Your task to perform on an android device: Search for pizza restaurants on Maps Image 0: 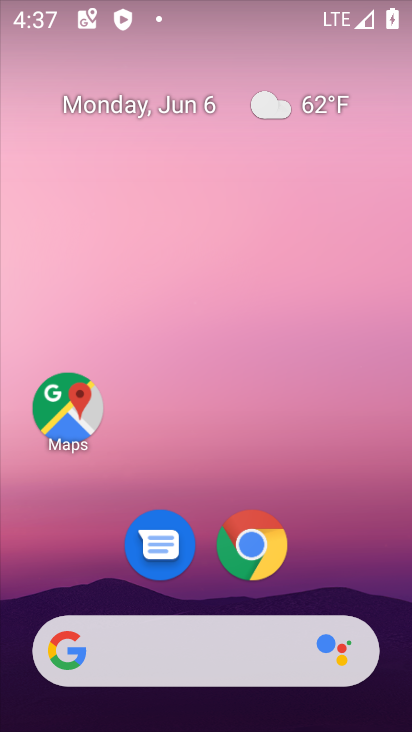
Step 0: drag from (237, 728) to (242, 160)
Your task to perform on an android device: Search for pizza restaurants on Maps Image 1: 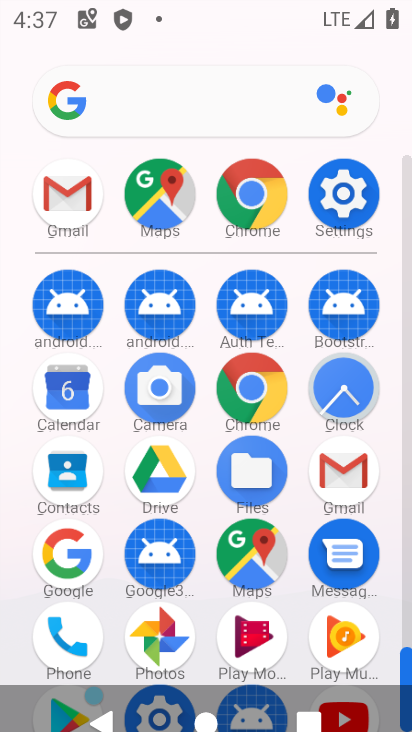
Step 1: click (234, 556)
Your task to perform on an android device: Search for pizza restaurants on Maps Image 2: 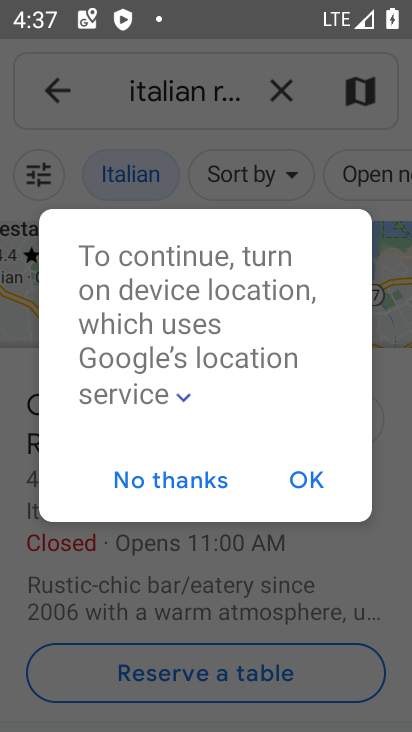
Step 2: click (200, 475)
Your task to perform on an android device: Search for pizza restaurants on Maps Image 3: 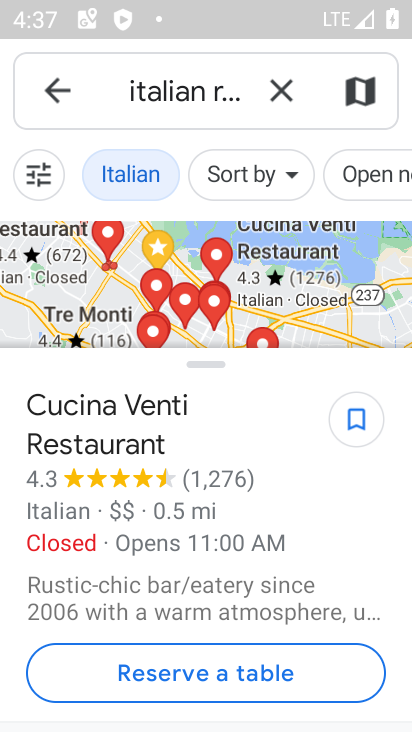
Step 3: click (284, 91)
Your task to perform on an android device: Search for pizza restaurants on Maps Image 4: 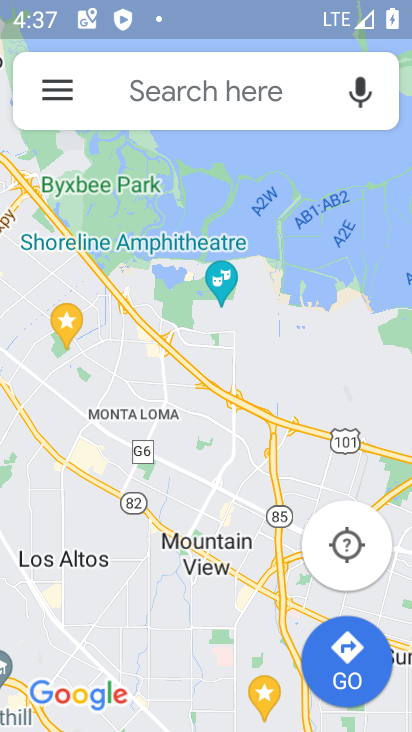
Step 4: click (206, 89)
Your task to perform on an android device: Search for pizza restaurants on Maps Image 5: 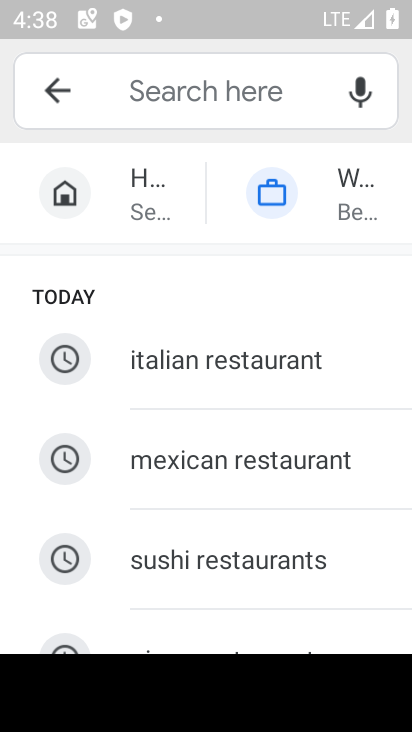
Step 5: type "Pizza restaurants"
Your task to perform on an android device: Search for pizza restaurants on Maps Image 6: 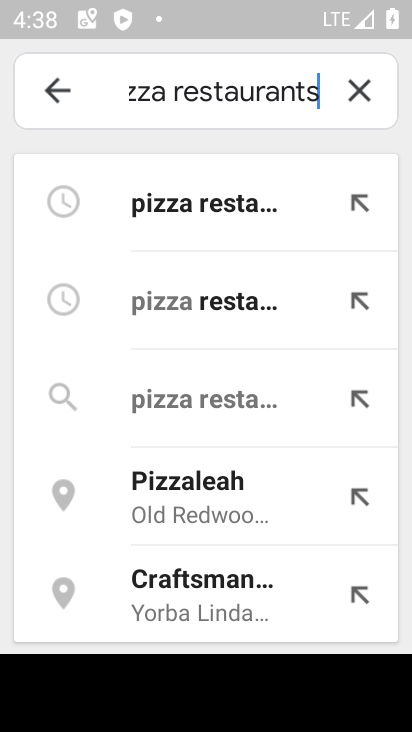
Step 6: click (228, 201)
Your task to perform on an android device: Search for pizza restaurants on Maps Image 7: 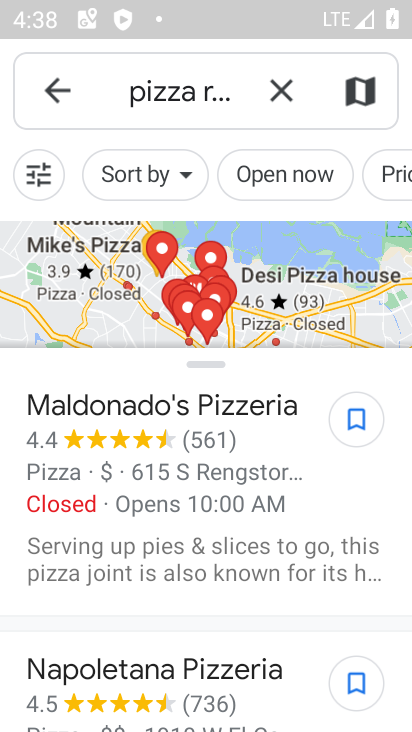
Step 7: task complete